Your task to perform on an android device: Go to Amazon Image 0: 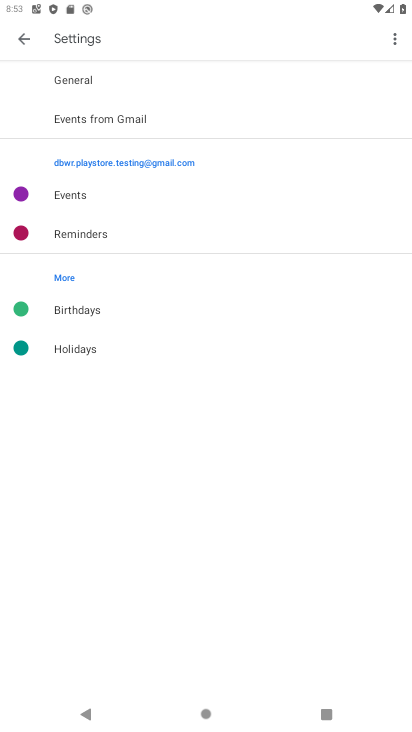
Step 0: press home button
Your task to perform on an android device: Go to Amazon Image 1: 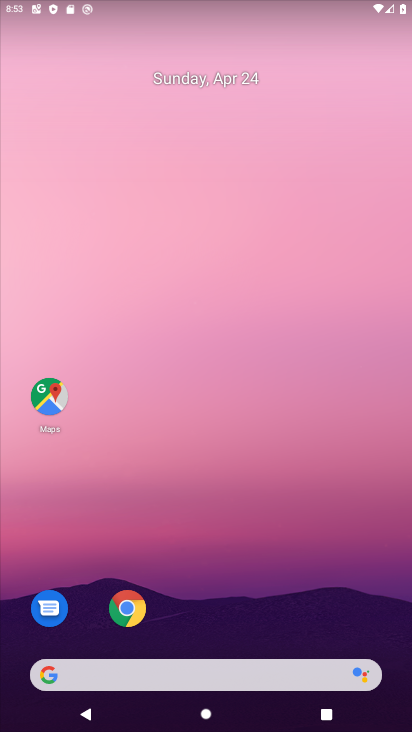
Step 1: drag from (265, 690) to (328, 218)
Your task to perform on an android device: Go to Amazon Image 2: 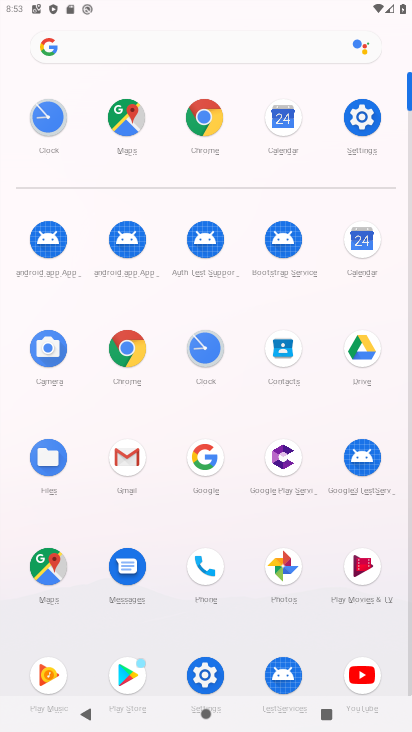
Step 2: click (209, 126)
Your task to perform on an android device: Go to Amazon Image 3: 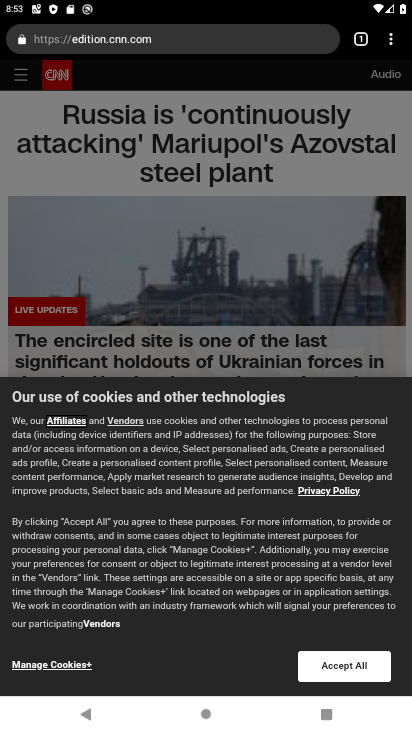
Step 3: click (364, 38)
Your task to perform on an android device: Go to Amazon Image 4: 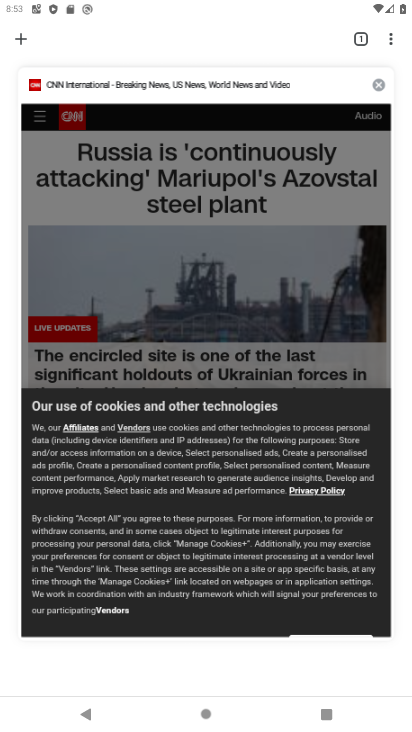
Step 4: click (22, 39)
Your task to perform on an android device: Go to Amazon Image 5: 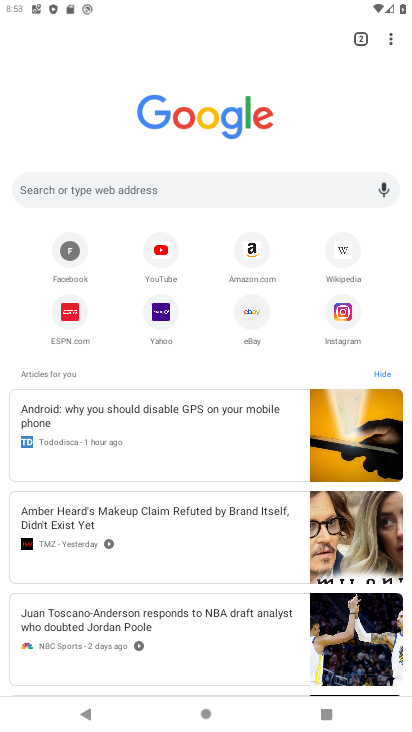
Step 5: click (253, 255)
Your task to perform on an android device: Go to Amazon Image 6: 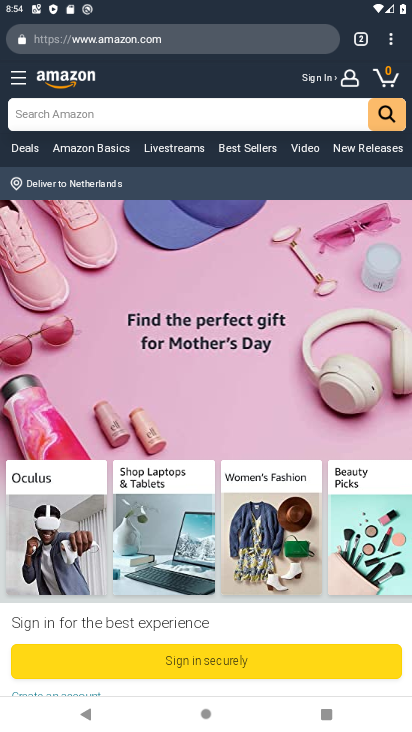
Step 6: task complete